Your task to perform on an android device: Clear the shopping cart on bestbuy. Add logitech g502 to the cart on bestbuy, then select checkout. Image 0: 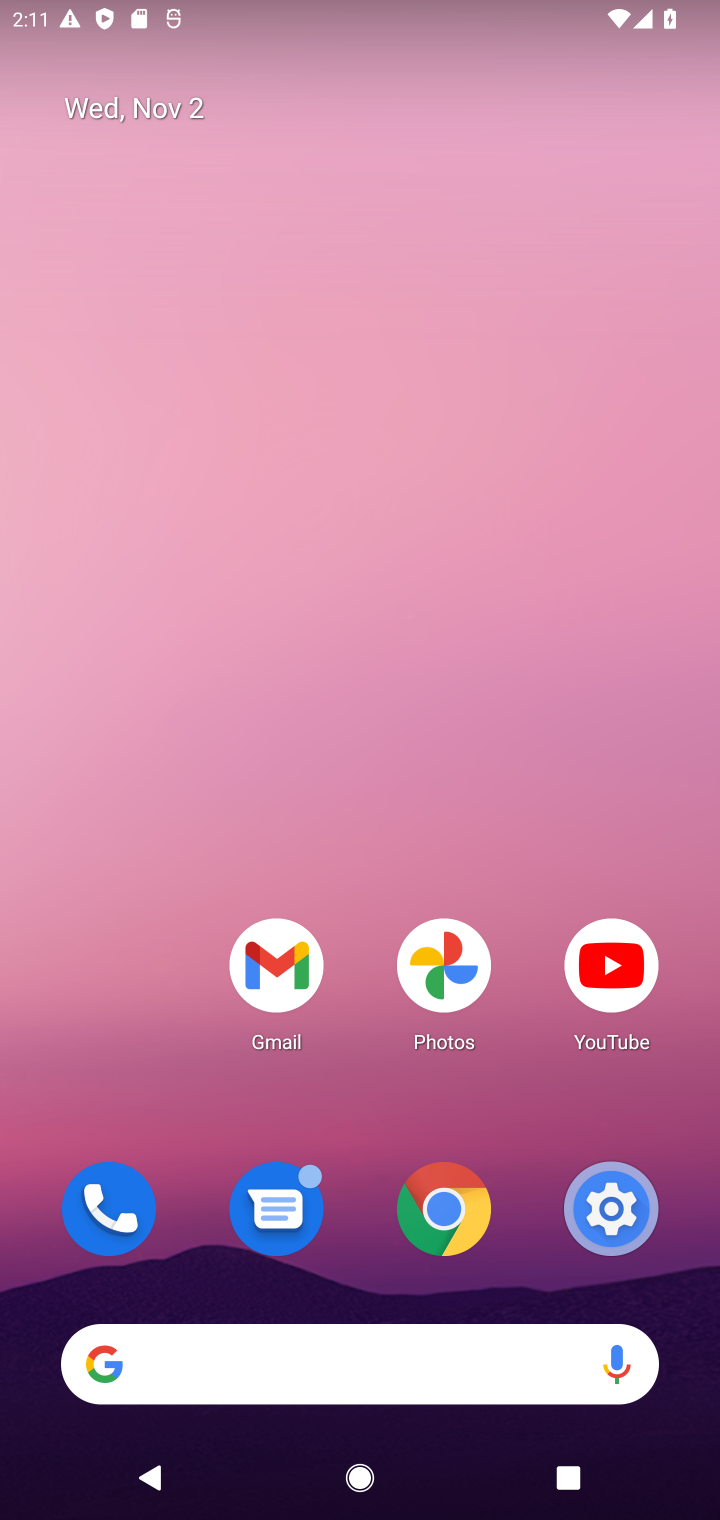
Step 0: click (299, 1363)
Your task to perform on an android device: Clear the shopping cart on bestbuy. Add logitech g502 to the cart on bestbuy, then select checkout. Image 1: 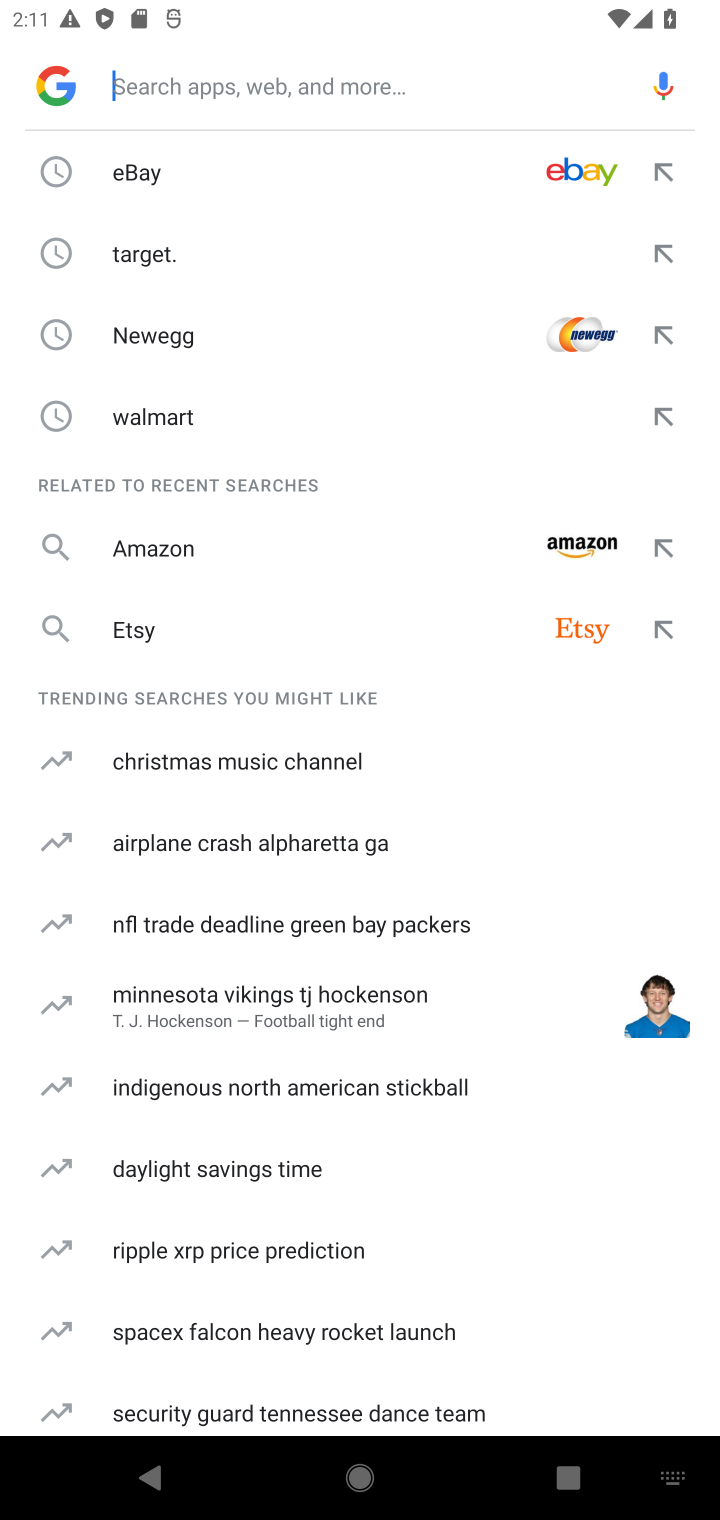
Step 1: type "best buy"
Your task to perform on an android device: Clear the shopping cart on bestbuy. Add logitech g502 to the cart on bestbuy, then select checkout. Image 2: 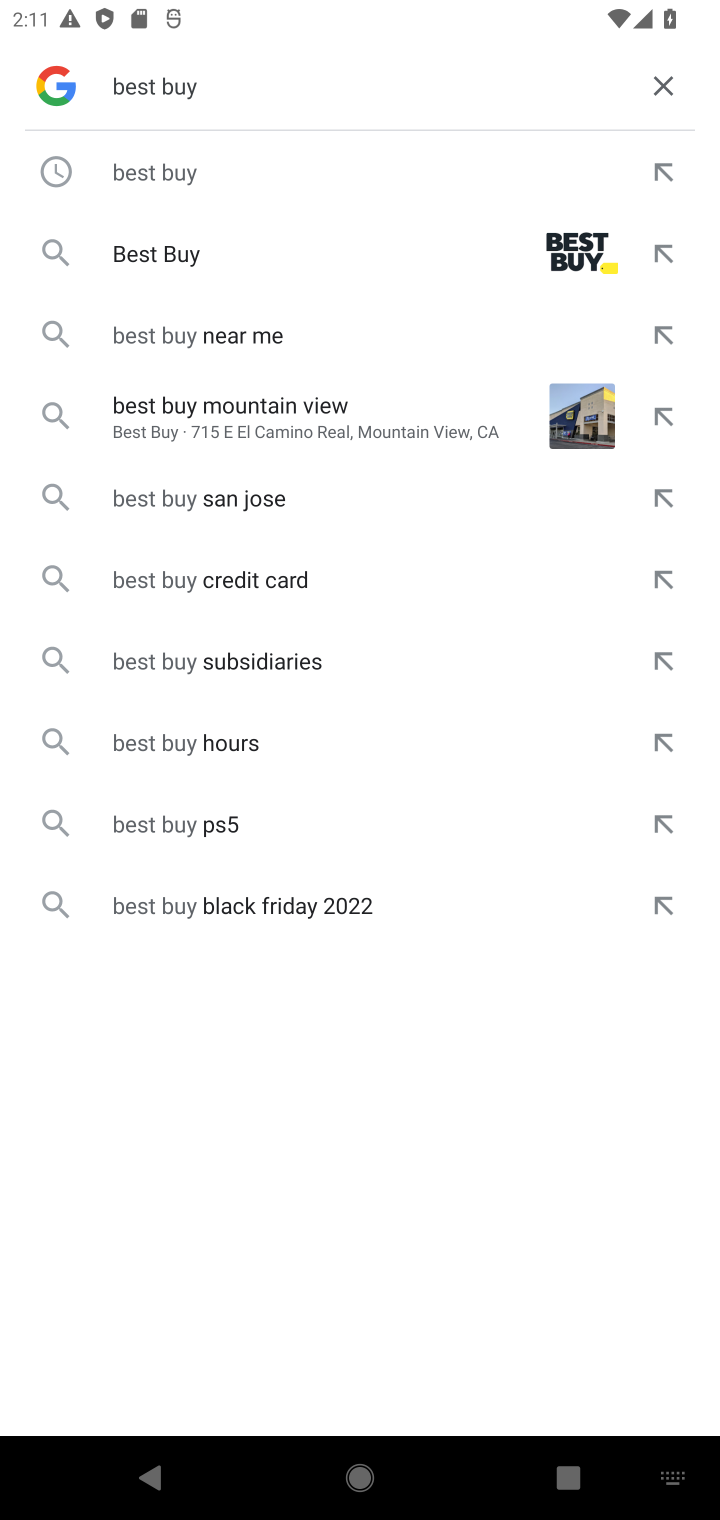
Step 2: click (165, 154)
Your task to perform on an android device: Clear the shopping cart on bestbuy. Add logitech g502 to the cart on bestbuy, then select checkout. Image 3: 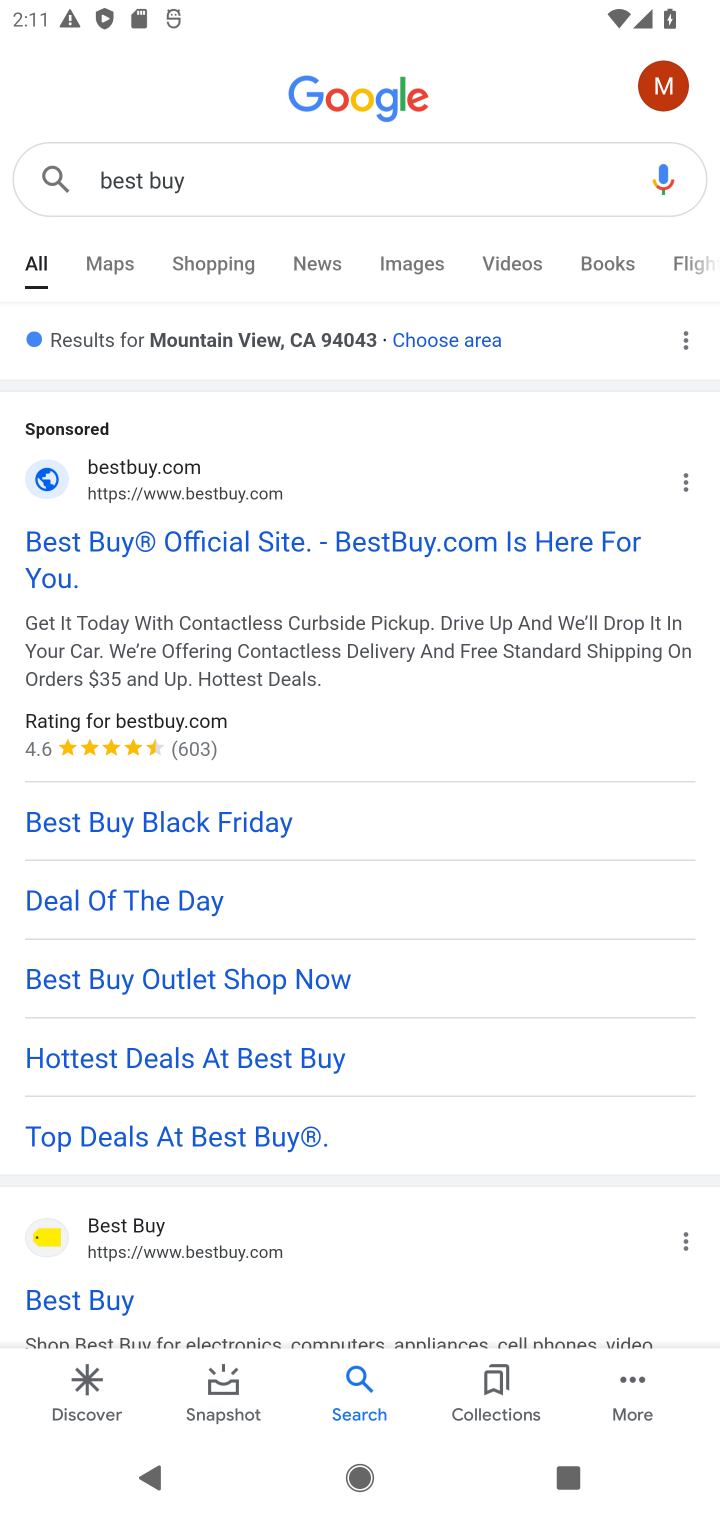
Step 3: click (52, 1286)
Your task to perform on an android device: Clear the shopping cart on bestbuy. Add logitech g502 to the cart on bestbuy, then select checkout. Image 4: 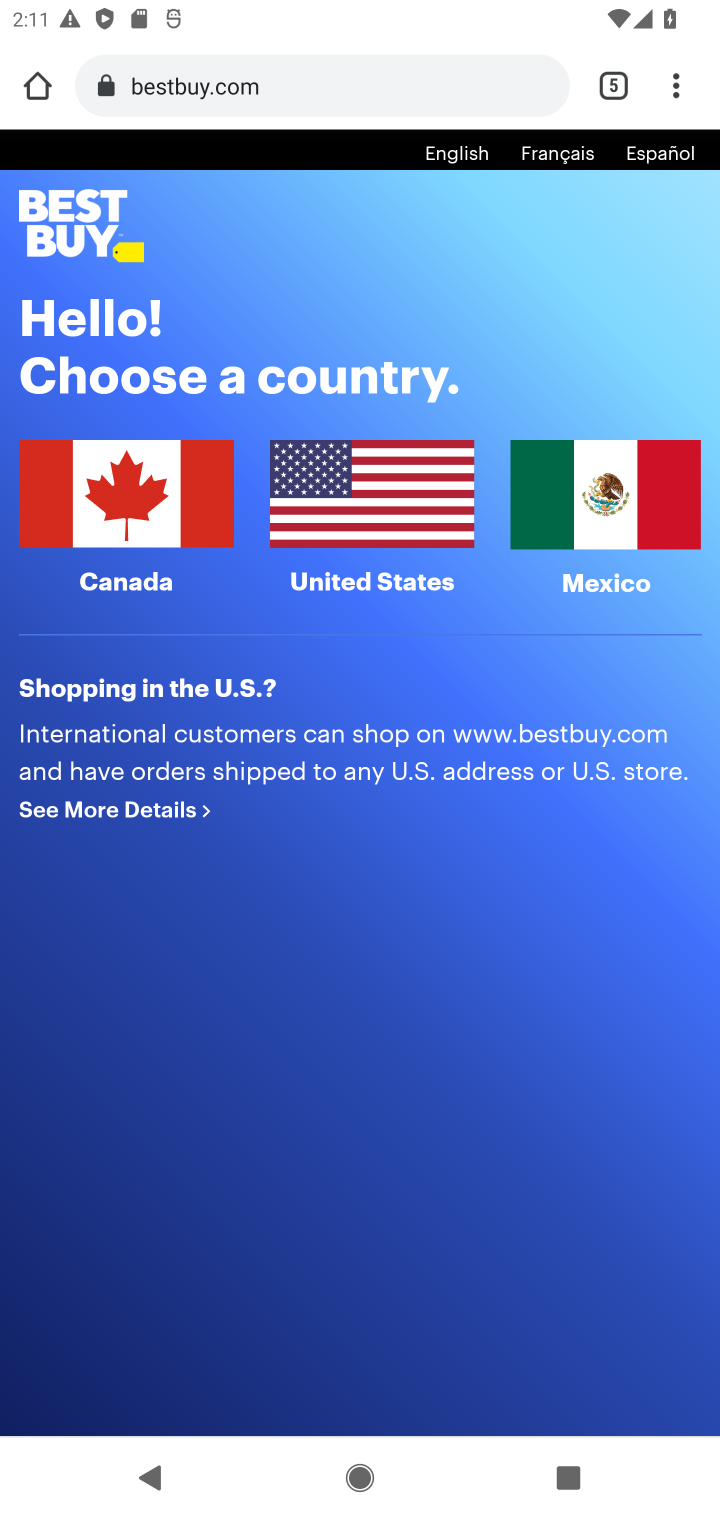
Step 4: click (409, 504)
Your task to perform on an android device: Clear the shopping cart on bestbuy. Add logitech g502 to the cart on bestbuy, then select checkout. Image 5: 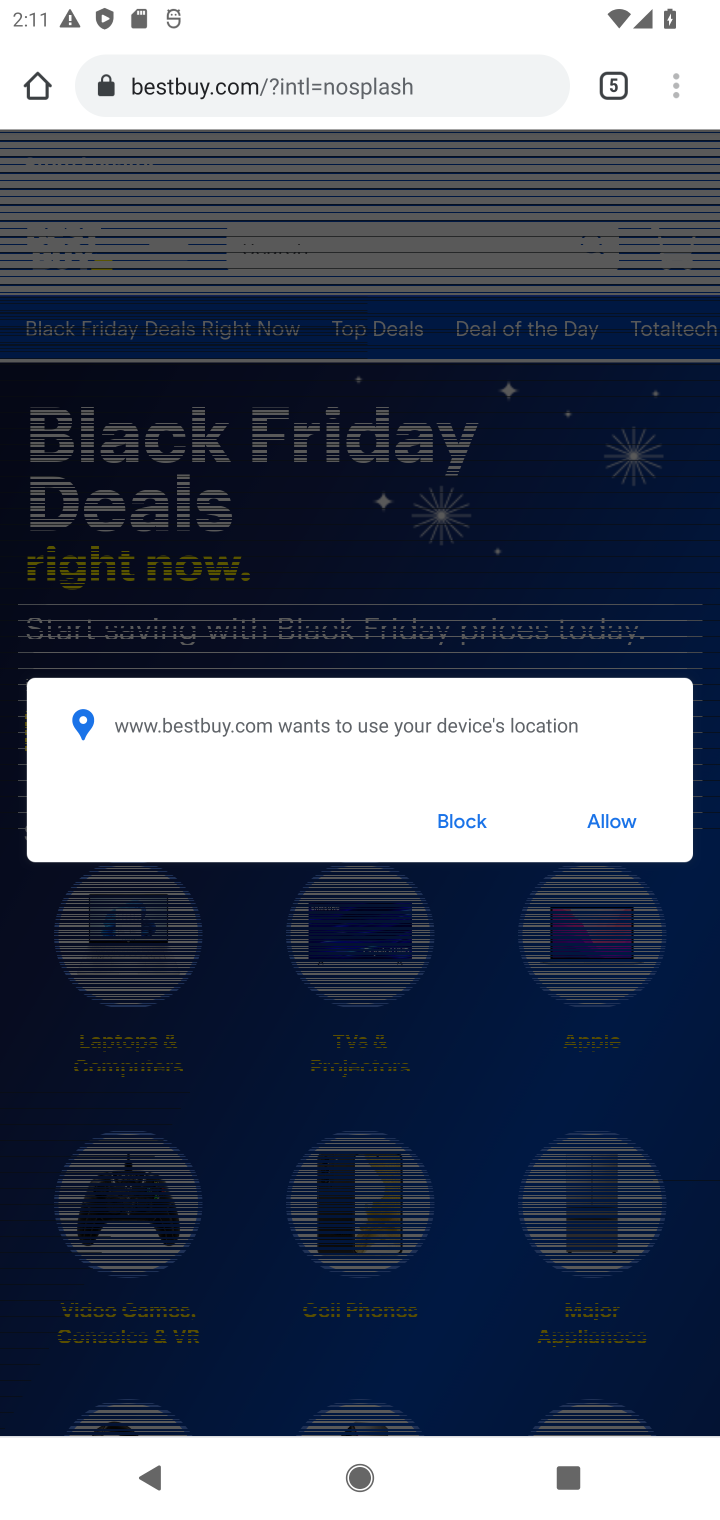
Step 5: click (601, 811)
Your task to perform on an android device: Clear the shopping cart on bestbuy. Add logitech g502 to the cart on bestbuy, then select checkout. Image 6: 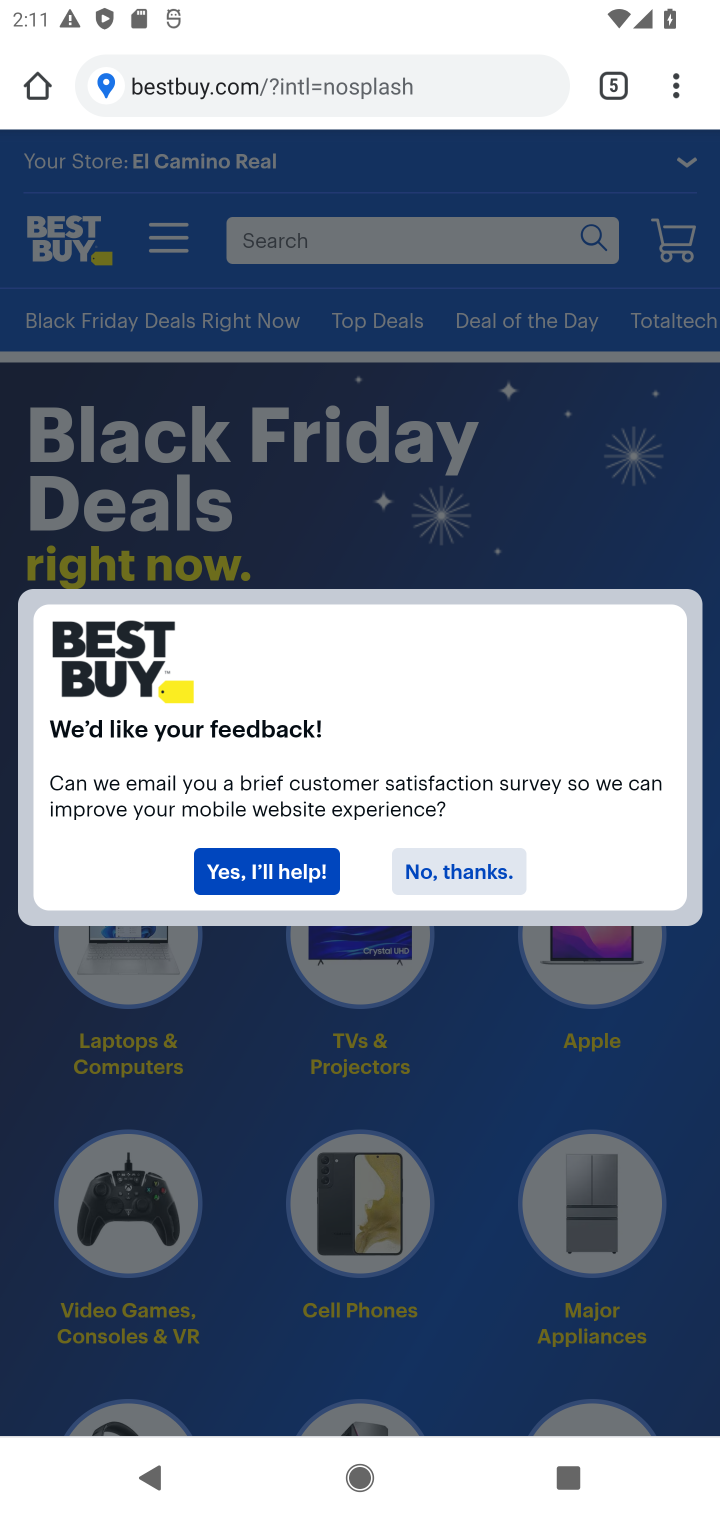
Step 6: click (424, 856)
Your task to perform on an android device: Clear the shopping cart on bestbuy. Add logitech g502 to the cart on bestbuy, then select checkout. Image 7: 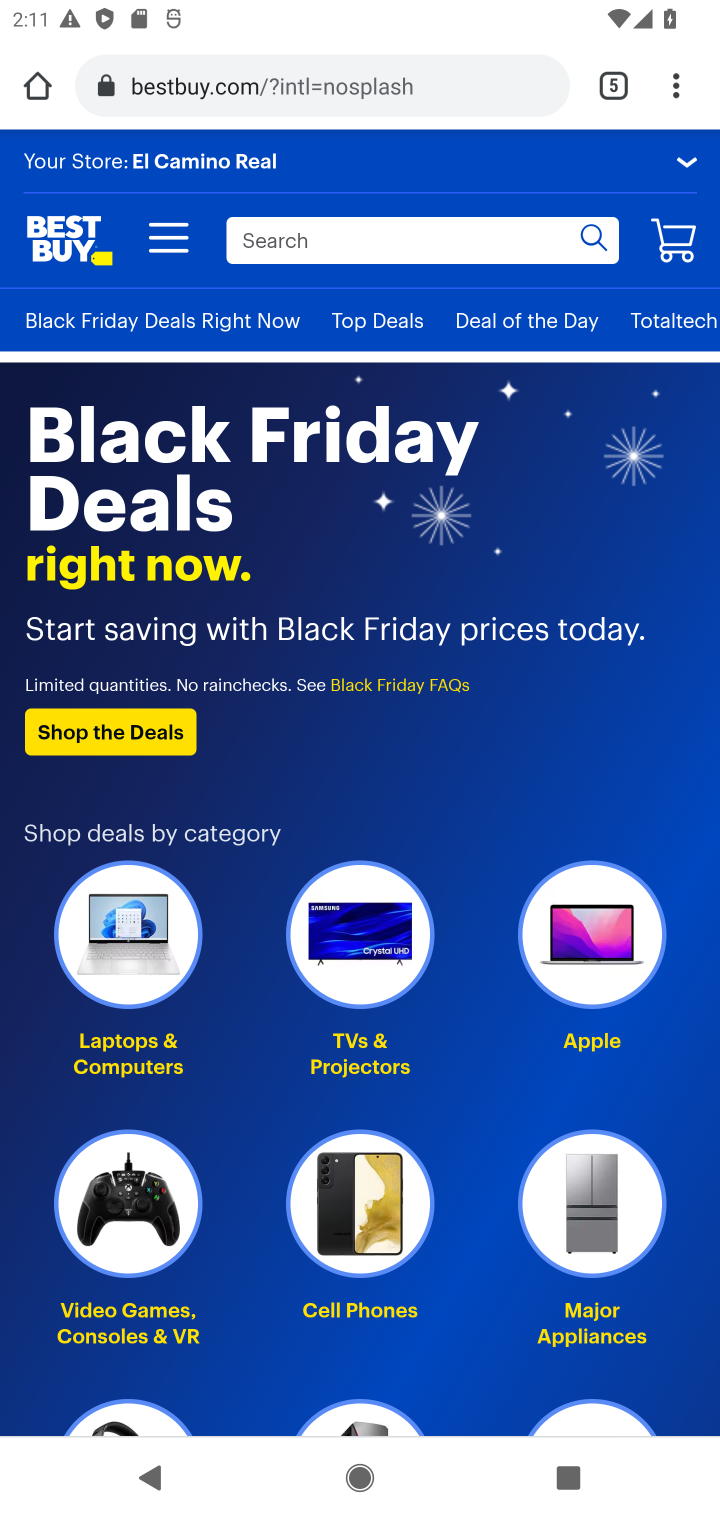
Step 7: click (440, 870)
Your task to perform on an android device: Clear the shopping cart on bestbuy. Add logitech g502 to the cart on bestbuy, then select checkout. Image 8: 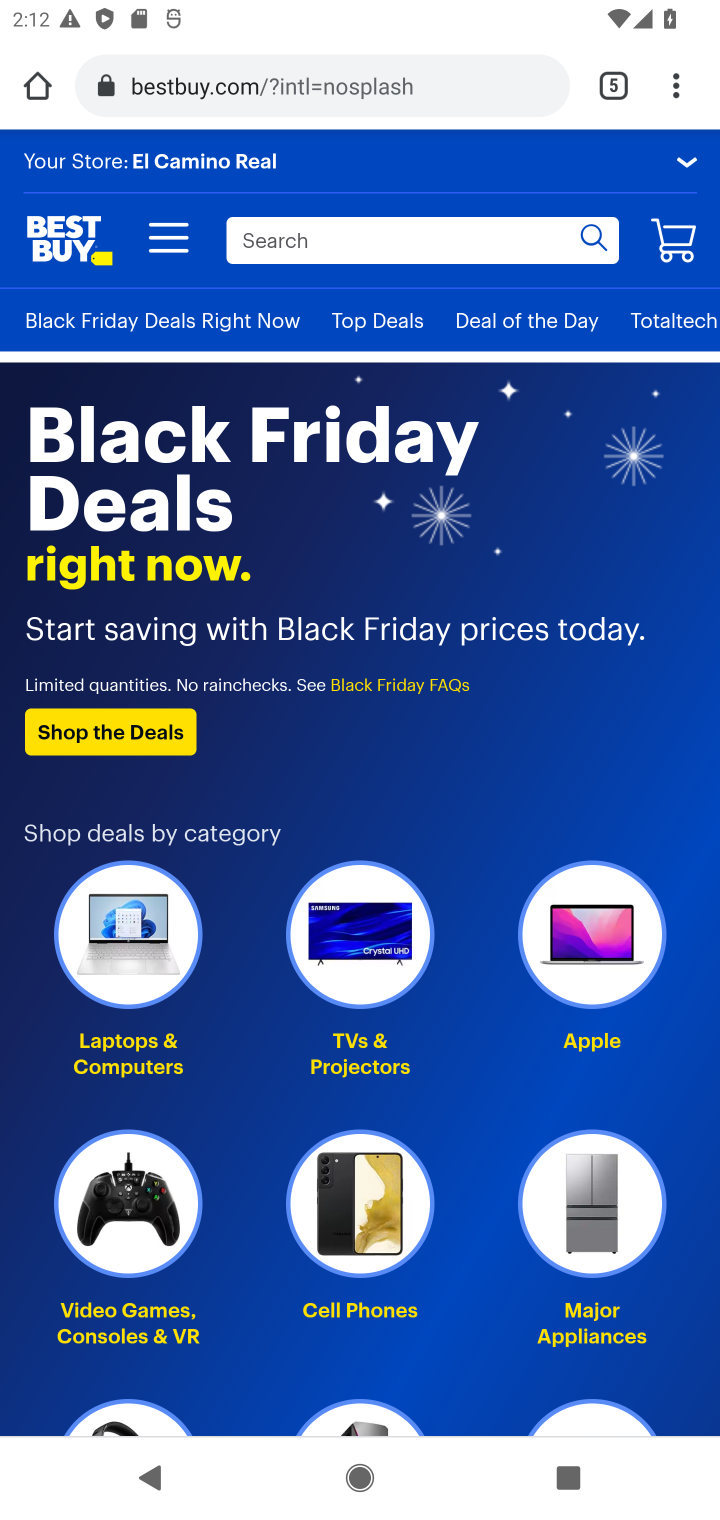
Step 8: click (362, 243)
Your task to perform on an android device: Clear the shopping cart on bestbuy. Add logitech g502 to the cart on bestbuy, then select checkout. Image 9: 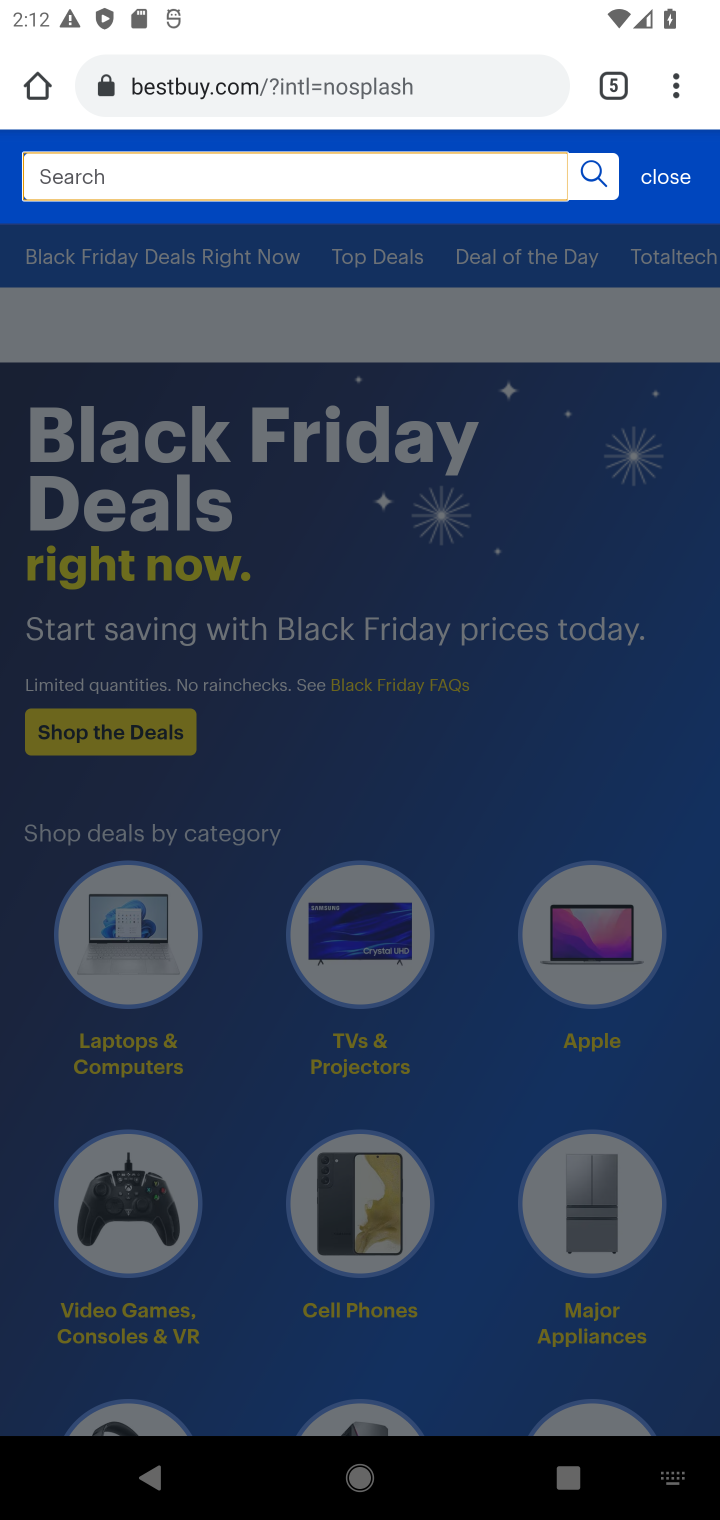
Step 9: type "logitech g502"
Your task to perform on an android device: Clear the shopping cart on bestbuy. Add logitech g502 to the cart on bestbuy, then select checkout. Image 10: 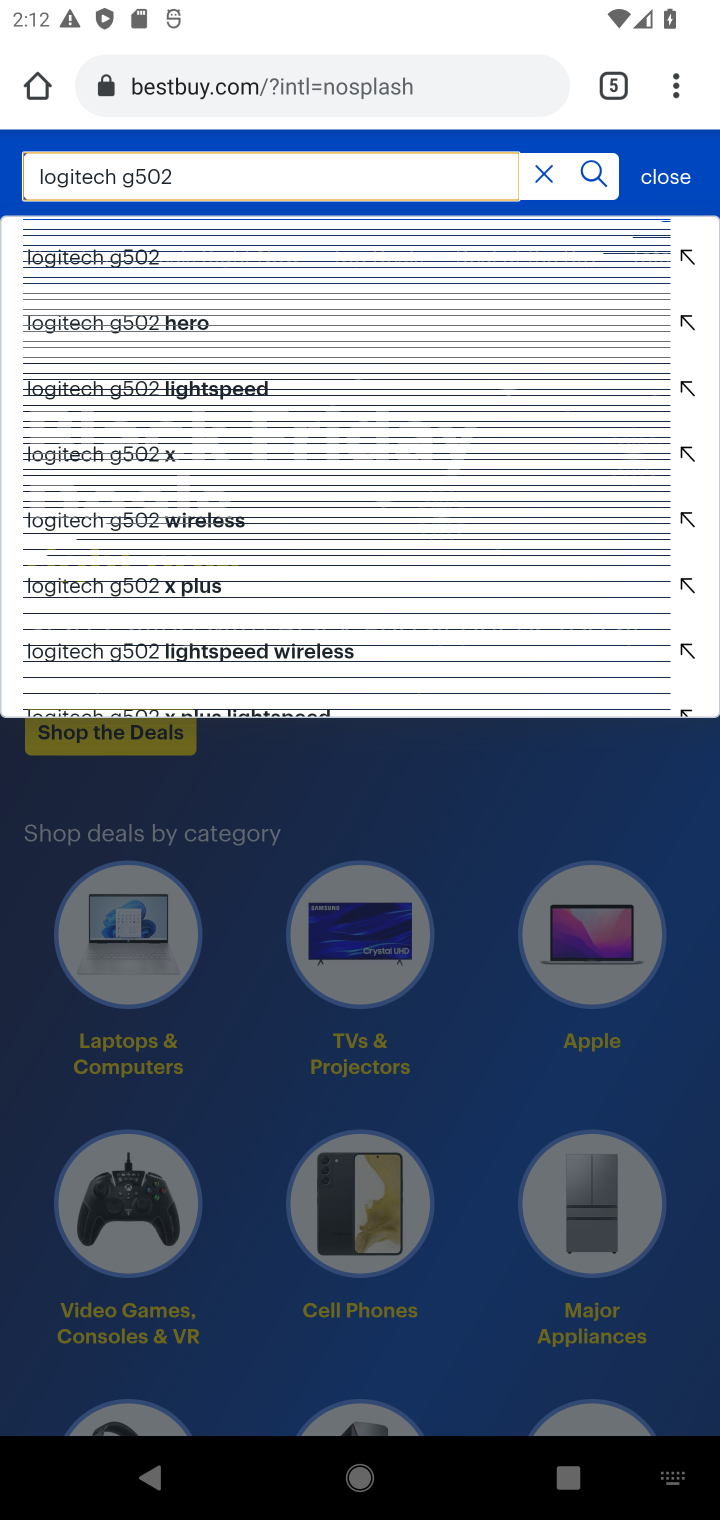
Step 10: click (135, 257)
Your task to perform on an android device: Clear the shopping cart on bestbuy. Add logitech g502 to the cart on bestbuy, then select checkout. Image 11: 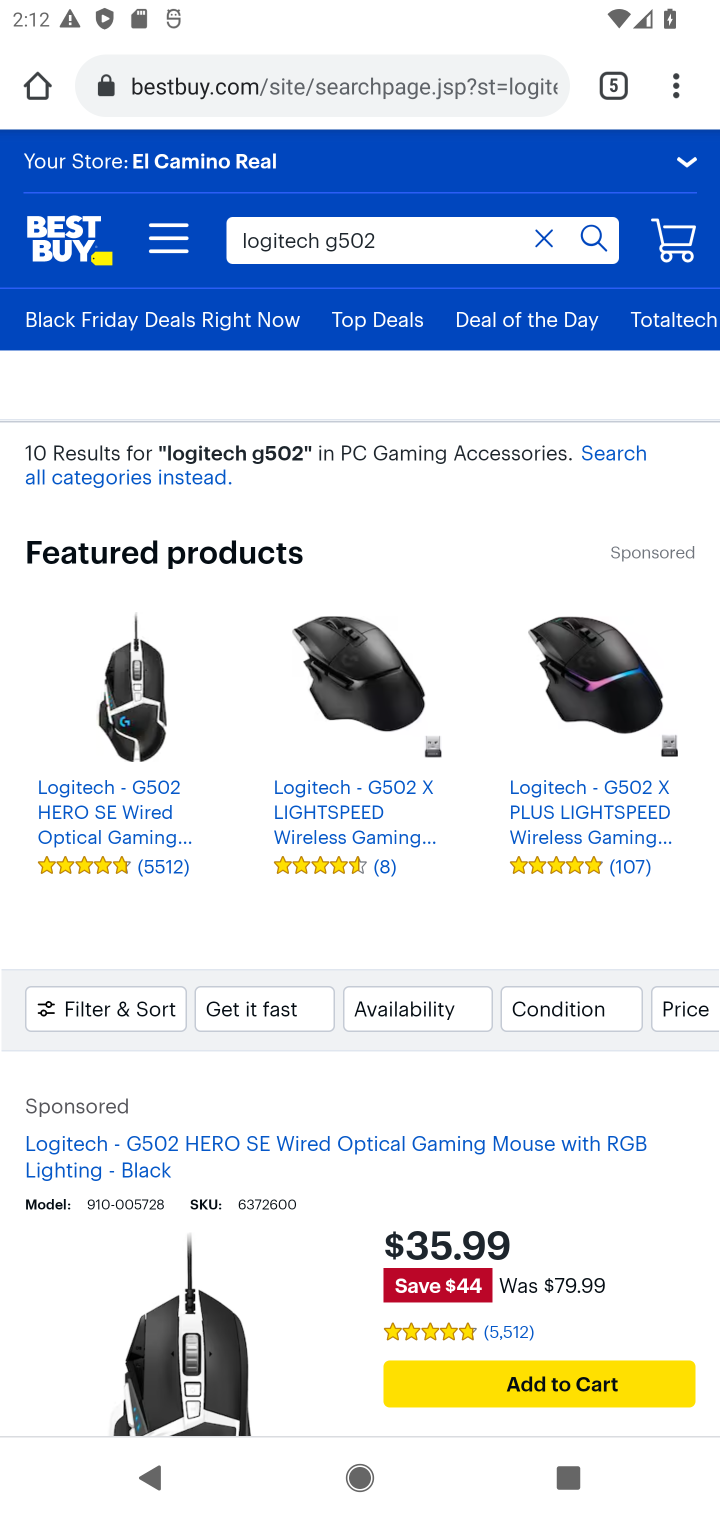
Step 11: drag from (661, 1248) to (575, 770)
Your task to perform on an android device: Clear the shopping cart on bestbuy. Add logitech g502 to the cart on bestbuy, then select checkout. Image 12: 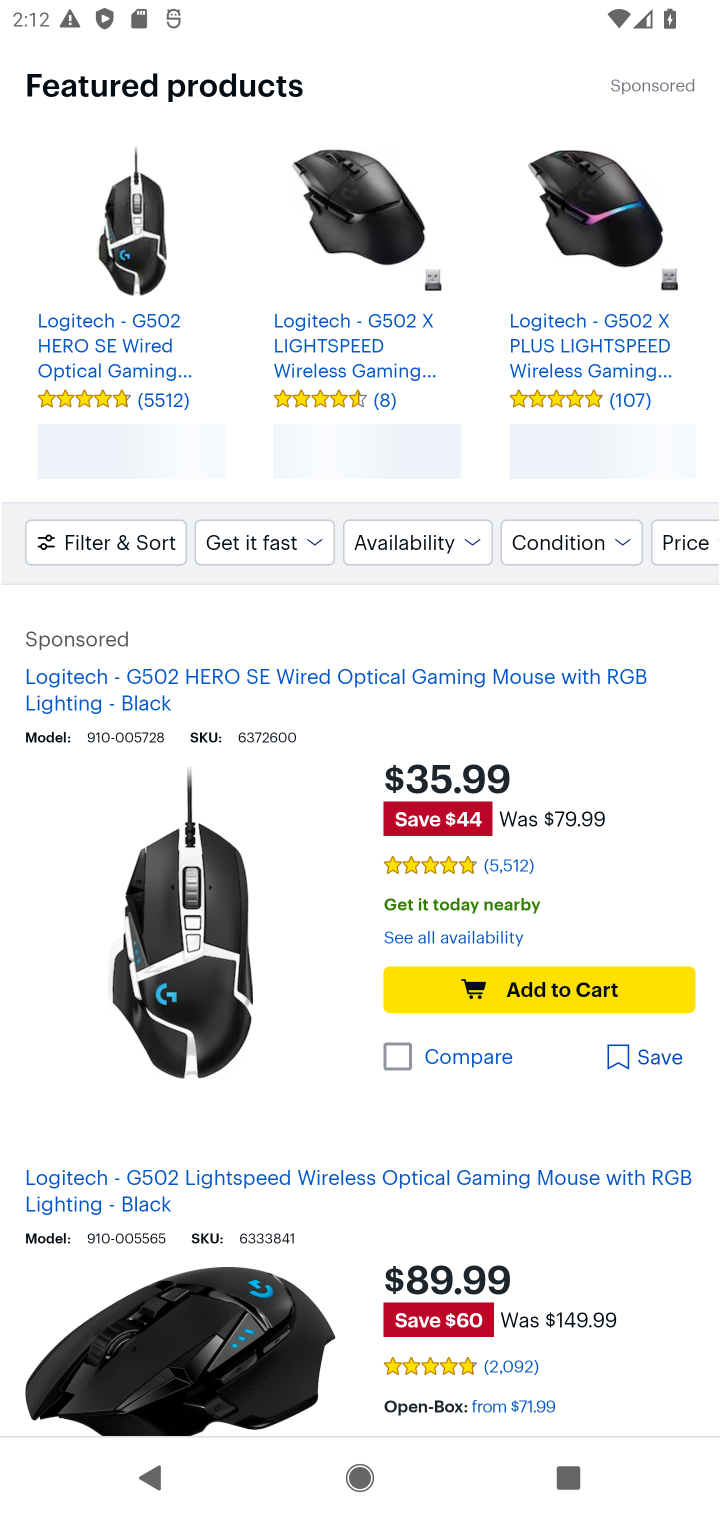
Step 12: click (541, 988)
Your task to perform on an android device: Clear the shopping cart on bestbuy. Add logitech g502 to the cart on bestbuy, then select checkout. Image 13: 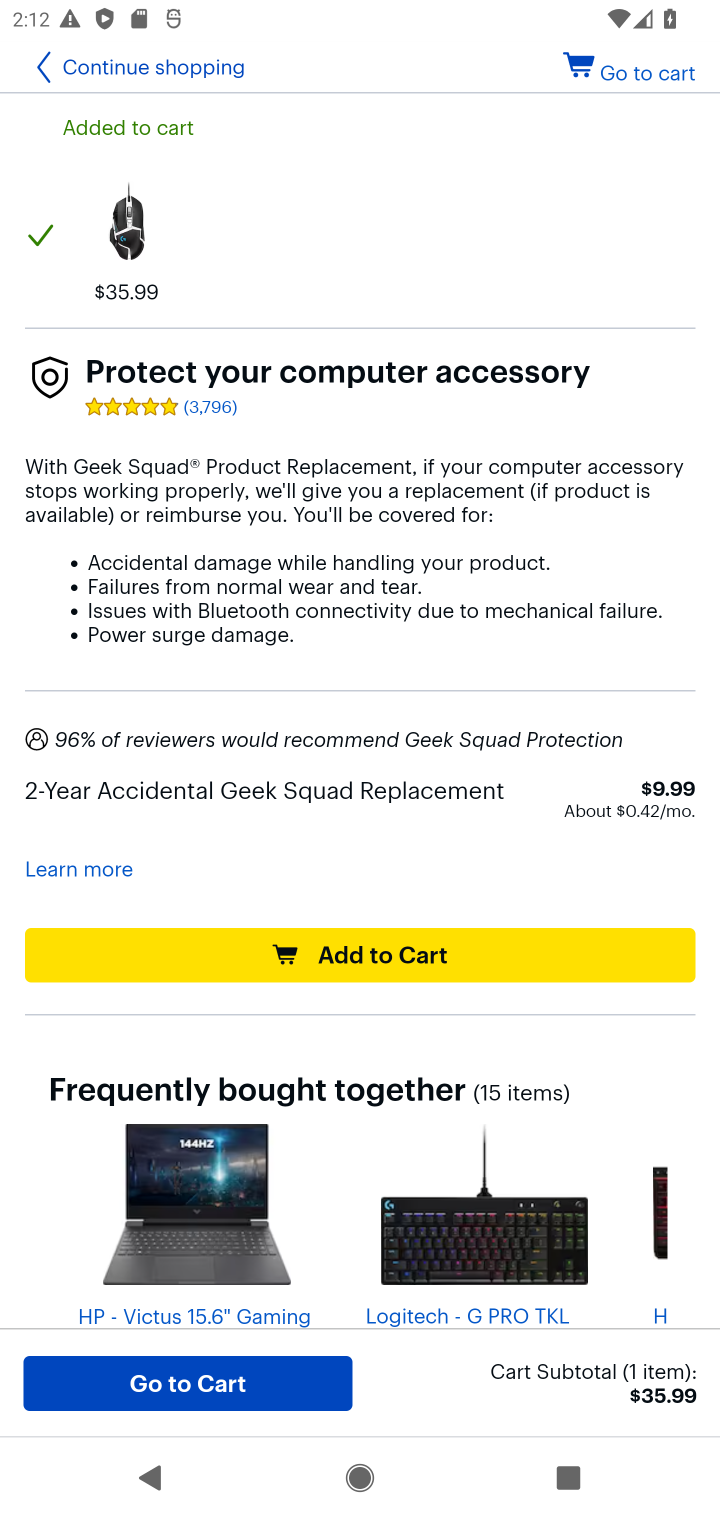
Step 13: click (366, 946)
Your task to perform on an android device: Clear the shopping cart on bestbuy. Add logitech g502 to the cart on bestbuy, then select checkout. Image 14: 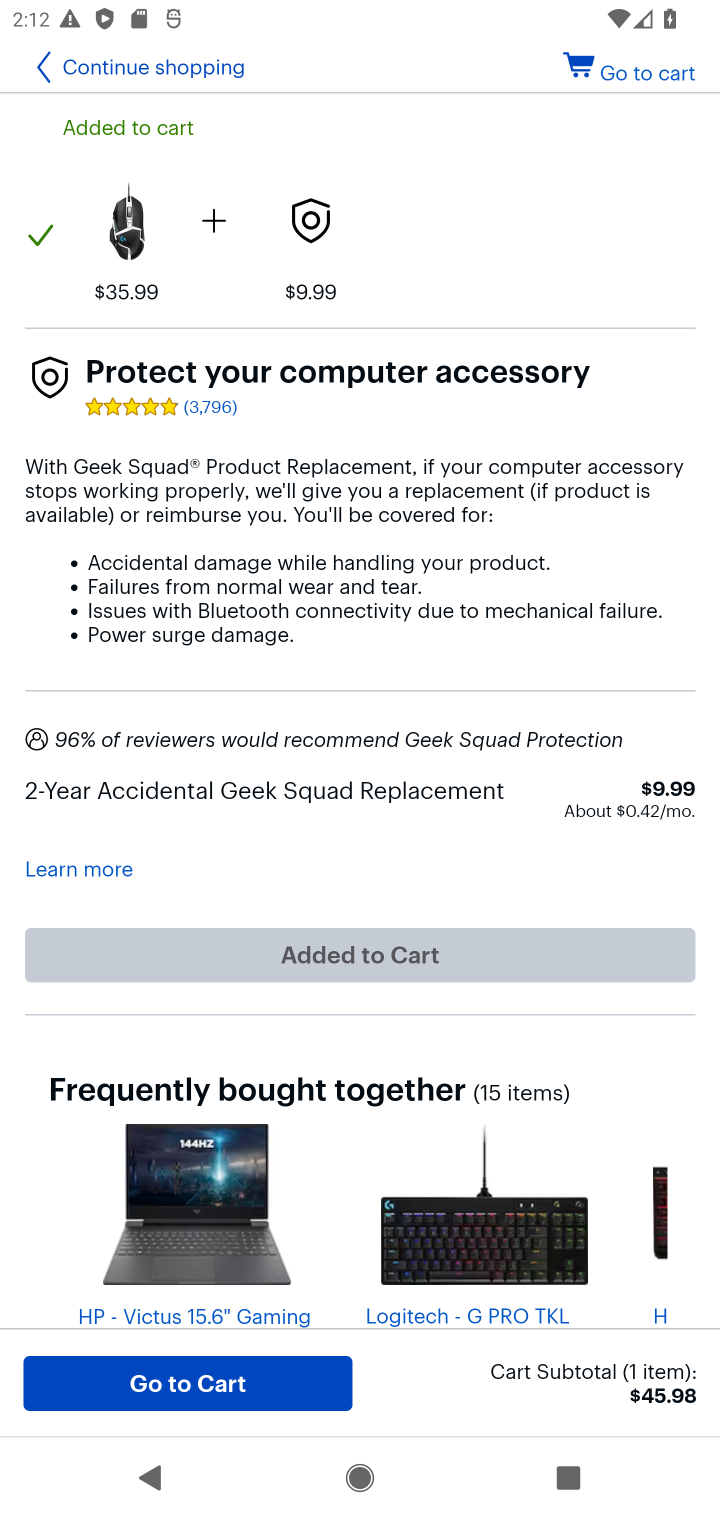
Step 14: click (202, 1379)
Your task to perform on an android device: Clear the shopping cart on bestbuy. Add logitech g502 to the cart on bestbuy, then select checkout. Image 15: 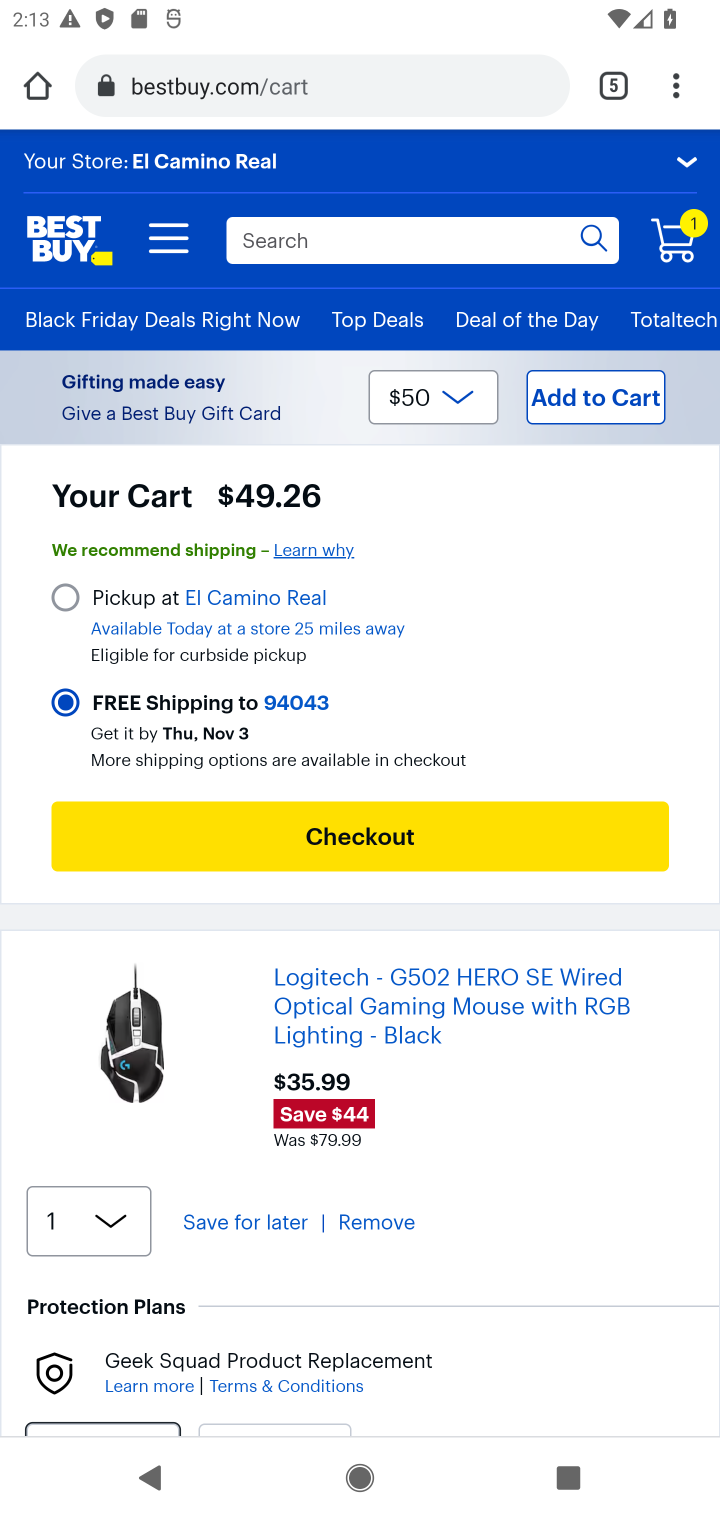
Step 15: click (695, 207)
Your task to perform on an android device: Clear the shopping cart on bestbuy. Add logitech g502 to the cart on bestbuy, then select checkout. Image 16: 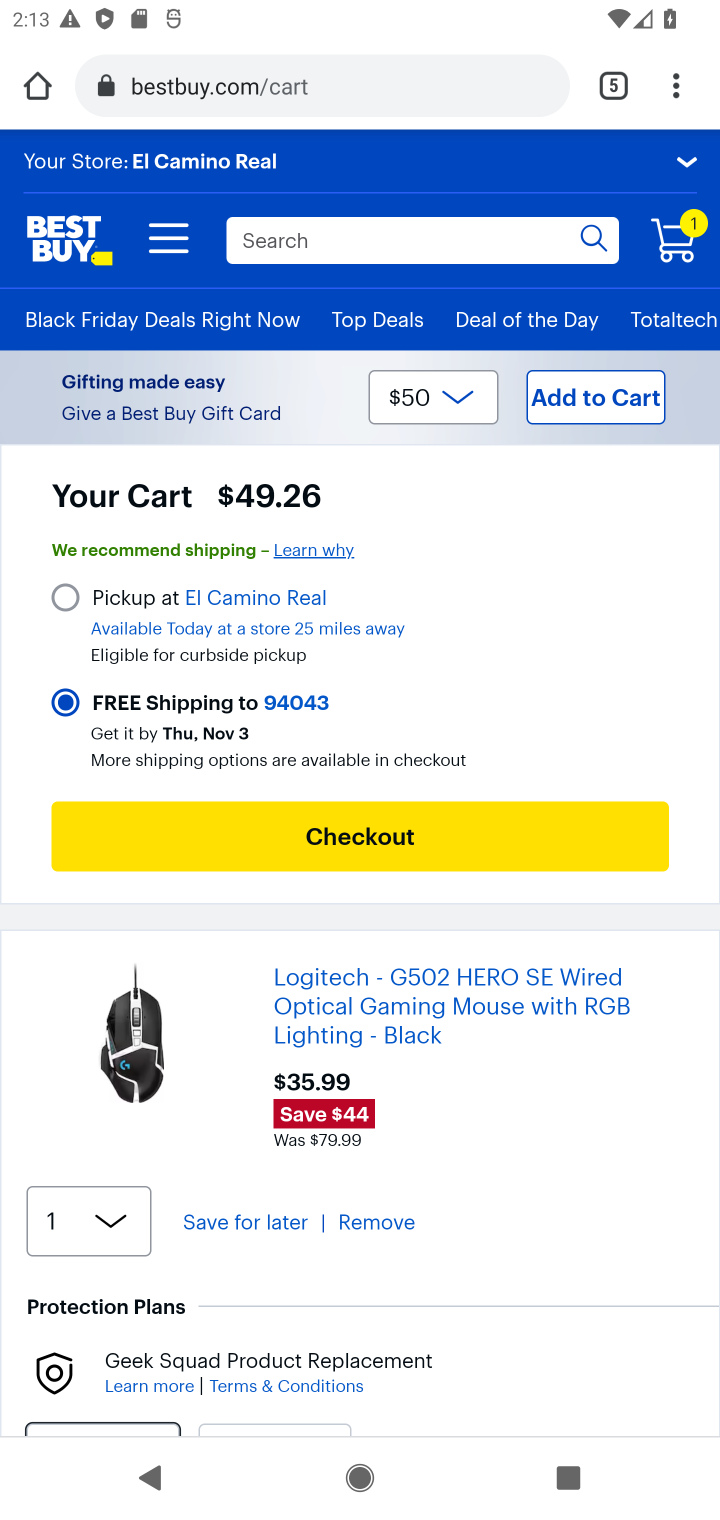
Step 16: drag from (591, 706) to (527, 317)
Your task to perform on an android device: Clear the shopping cart on bestbuy. Add logitech g502 to the cart on bestbuy, then select checkout. Image 17: 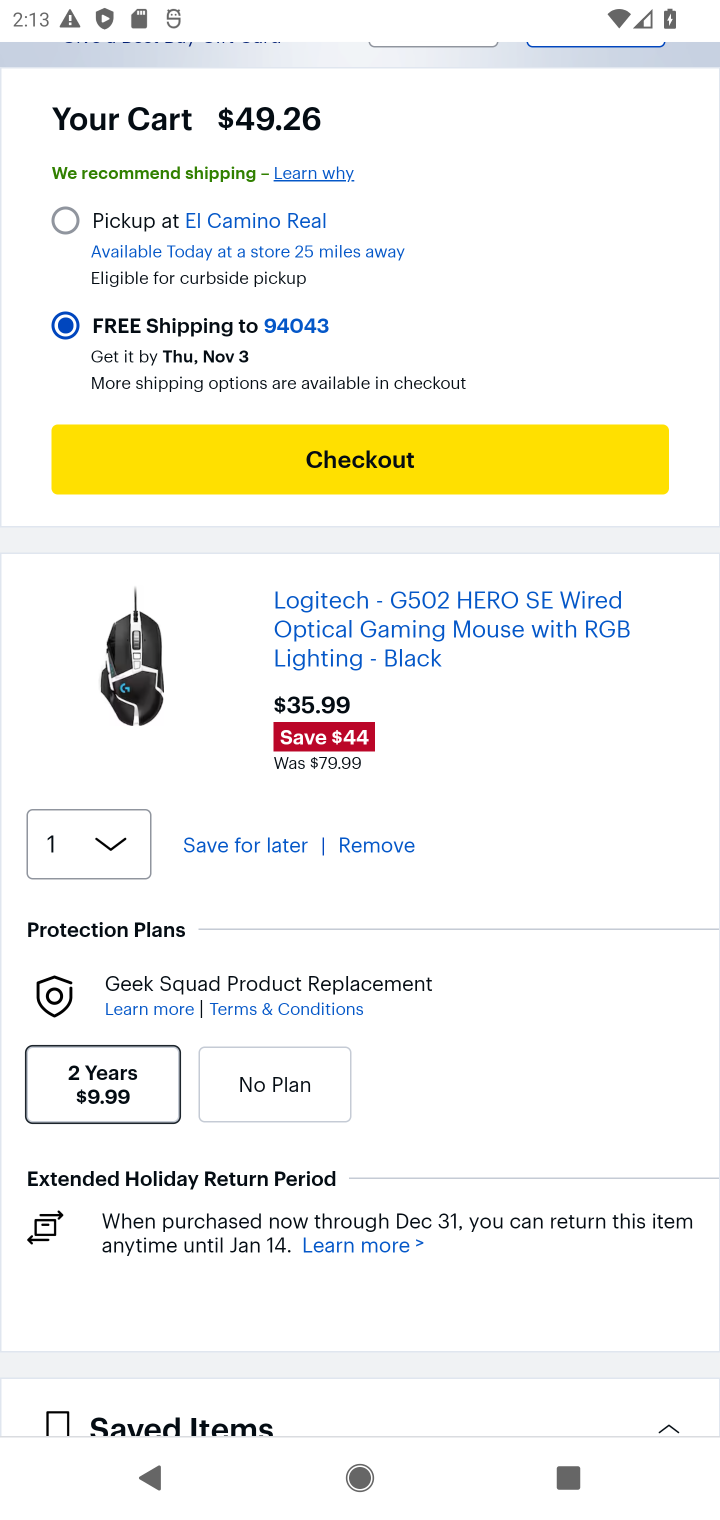
Step 17: drag from (556, 871) to (512, 471)
Your task to perform on an android device: Clear the shopping cart on bestbuy. Add logitech g502 to the cart on bestbuy, then select checkout. Image 18: 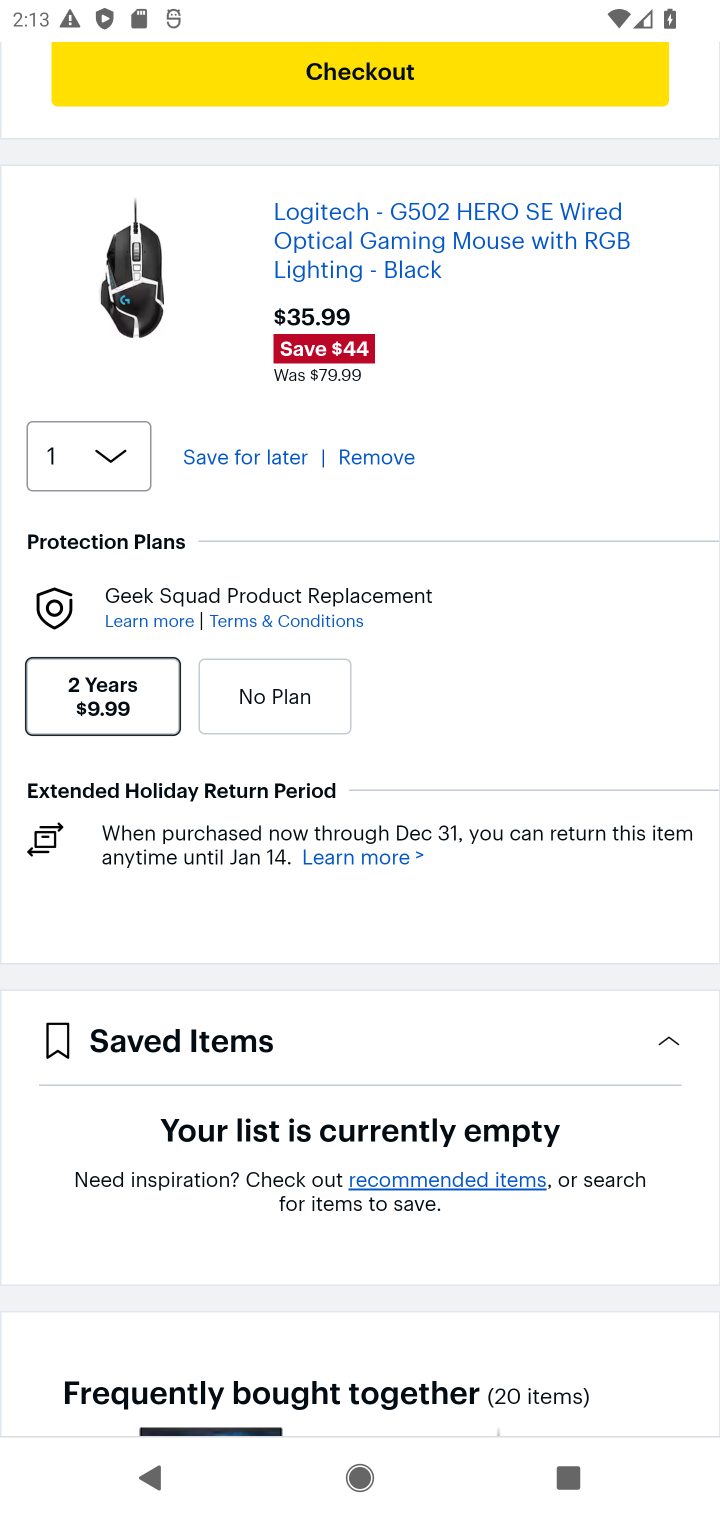
Step 18: drag from (512, 471) to (497, 1251)
Your task to perform on an android device: Clear the shopping cart on bestbuy. Add logitech g502 to the cart on bestbuy, then select checkout. Image 19: 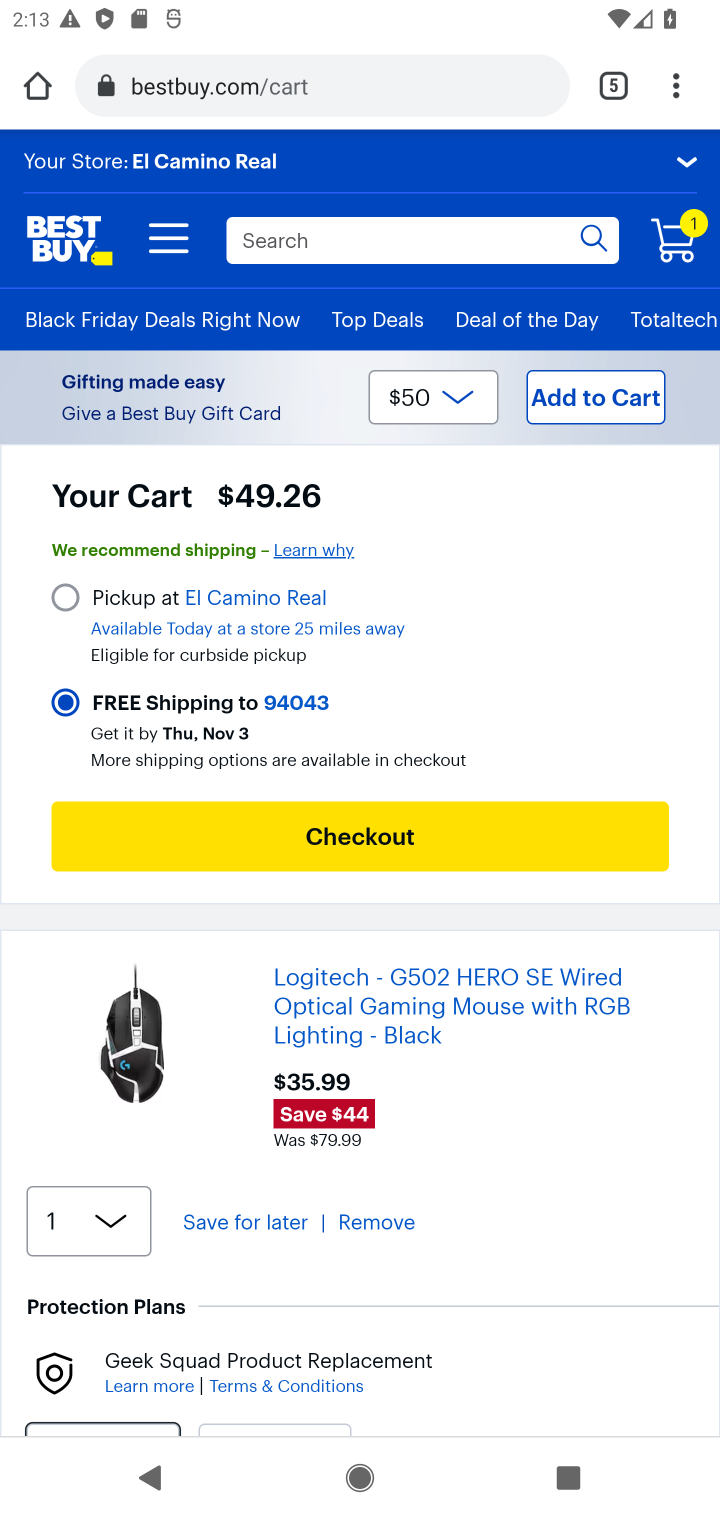
Step 19: click (351, 834)
Your task to perform on an android device: Clear the shopping cart on bestbuy. Add logitech g502 to the cart on bestbuy, then select checkout. Image 20: 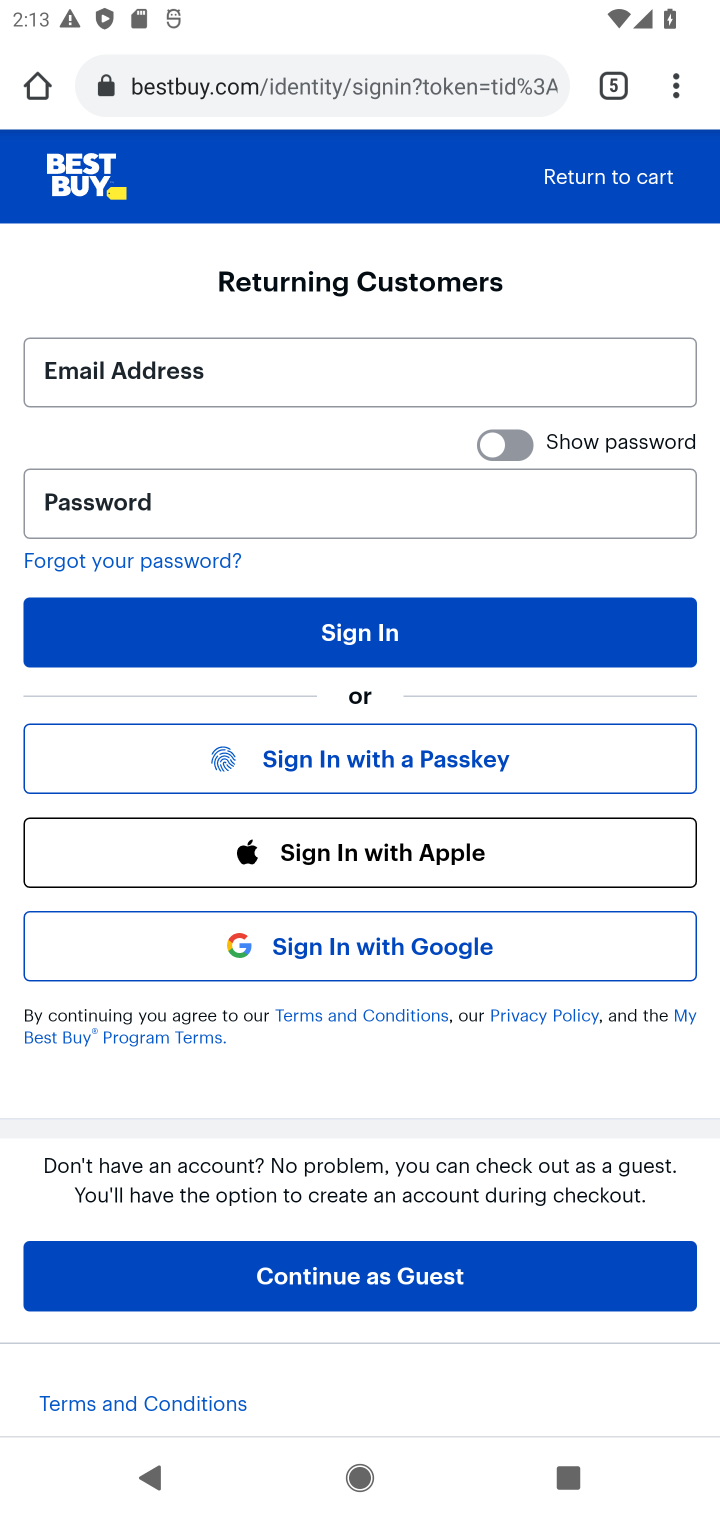
Step 20: task complete